Your task to perform on an android device: snooze an email in the gmail app Image 0: 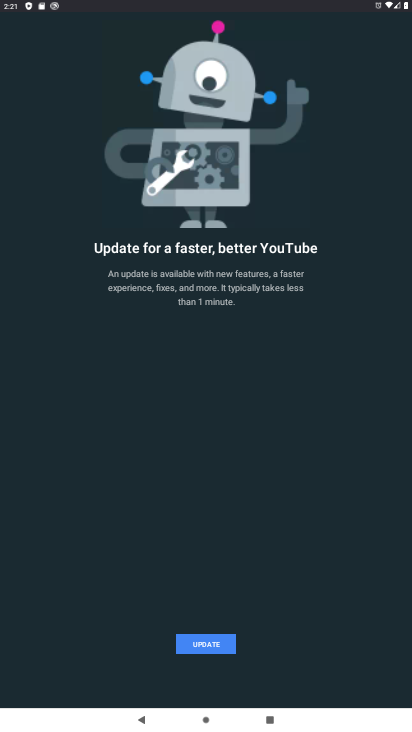
Step 0: press home button
Your task to perform on an android device: snooze an email in the gmail app Image 1: 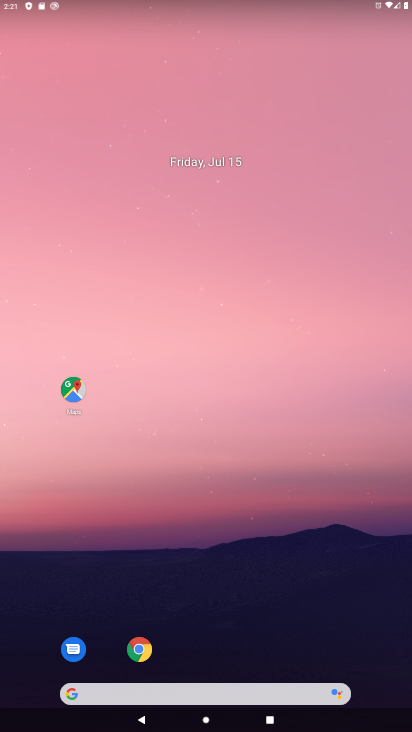
Step 1: drag from (187, 628) to (182, 231)
Your task to perform on an android device: snooze an email in the gmail app Image 2: 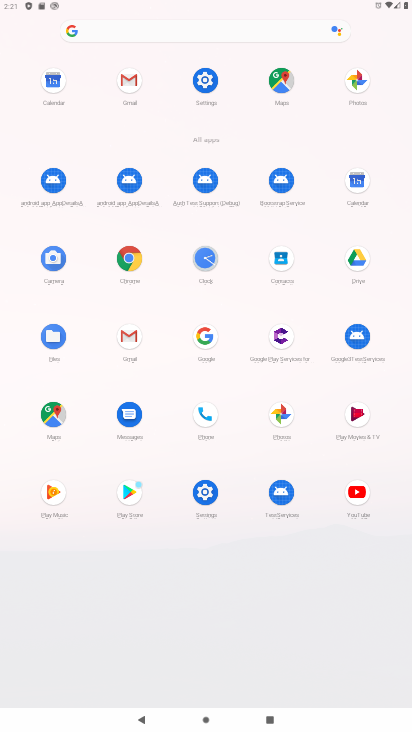
Step 2: click (130, 79)
Your task to perform on an android device: snooze an email in the gmail app Image 3: 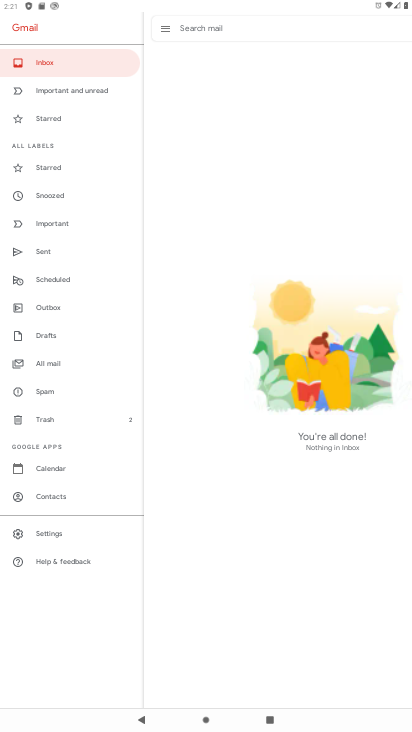
Step 3: task complete